Your task to perform on an android device: open a bookmark in the chrome app Image 0: 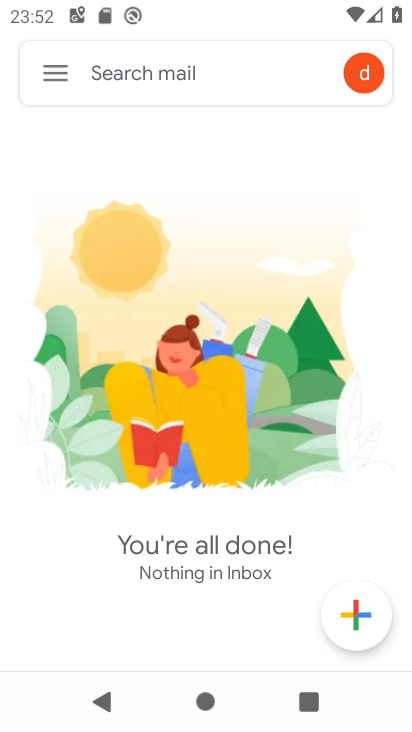
Step 0: press home button
Your task to perform on an android device: open a bookmark in the chrome app Image 1: 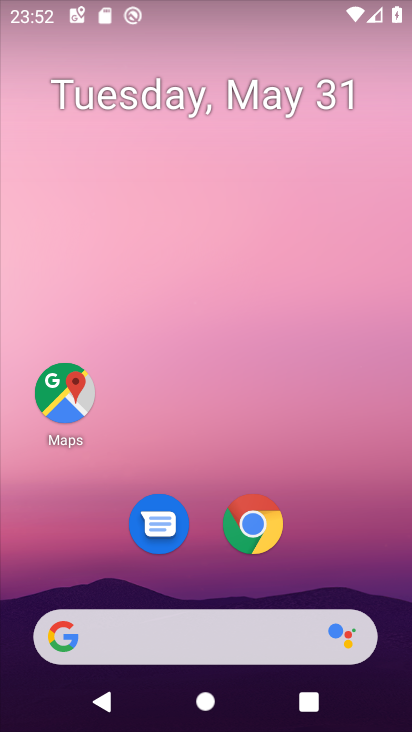
Step 1: click (257, 535)
Your task to perform on an android device: open a bookmark in the chrome app Image 2: 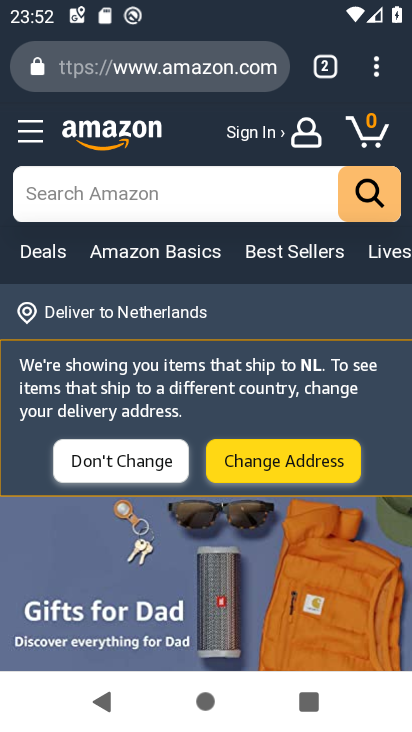
Step 2: click (382, 69)
Your task to perform on an android device: open a bookmark in the chrome app Image 3: 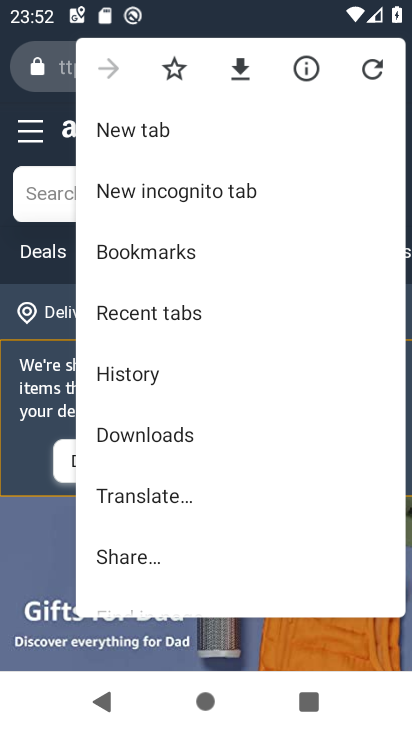
Step 3: click (206, 237)
Your task to perform on an android device: open a bookmark in the chrome app Image 4: 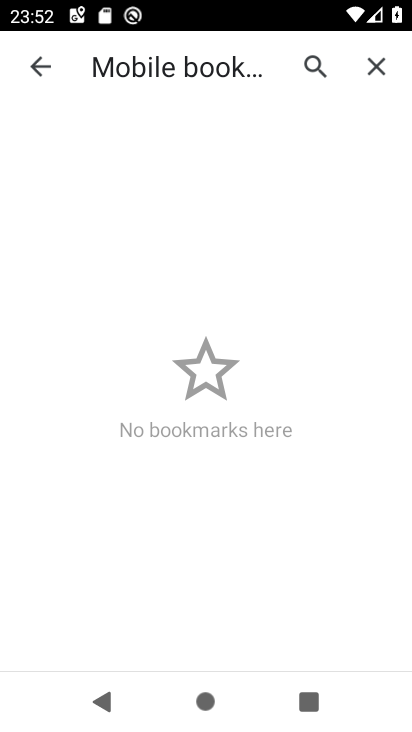
Step 4: task complete